Your task to perform on an android device: What's the weather? Image 0: 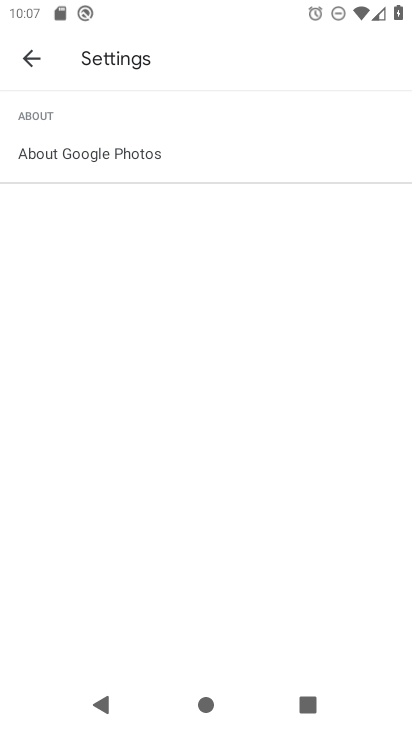
Step 0: press home button
Your task to perform on an android device: What's the weather? Image 1: 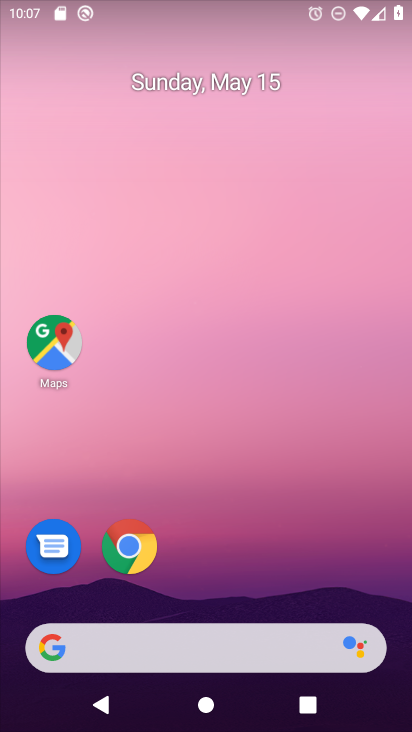
Step 1: click (132, 539)
Your task to perform on an android device: What's the weather? Image 2: 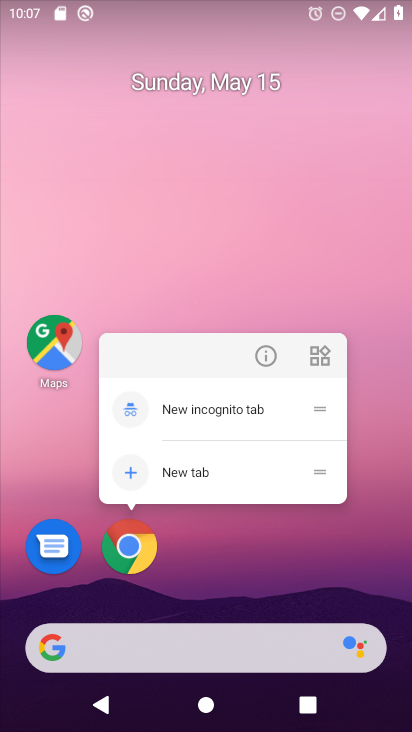
Step 2: click (132, 539)
Your task to perform on an android device: What's the weather? Image 3: 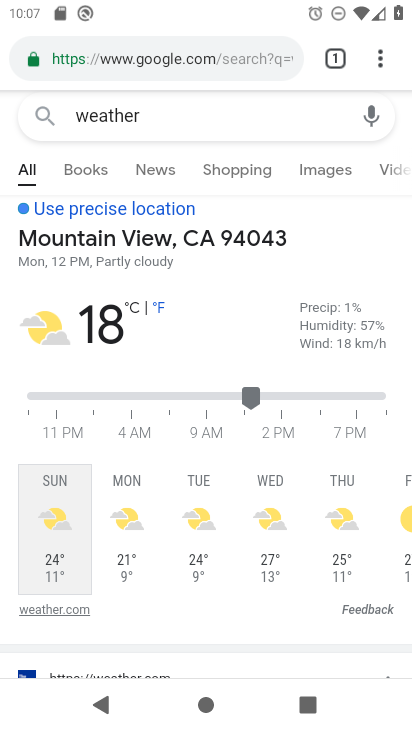
Step 3: task complete